Your task to perform on an android device: Is it going to rain tomorrow? Image 0: 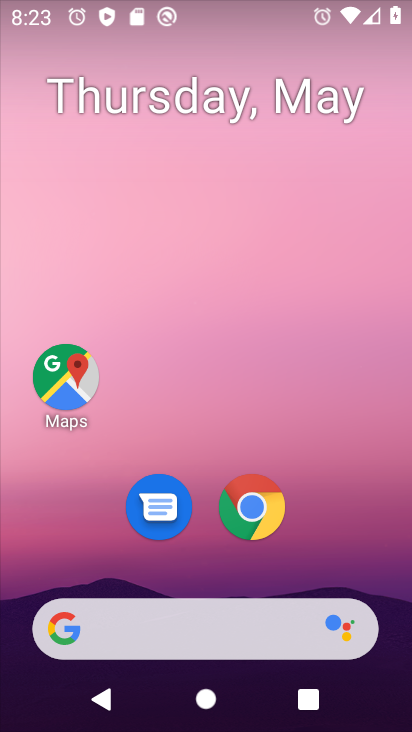
Step 0: click (196, 617)
Your task to perform on an android device: Is it going to rain tomorrow? Image 1: 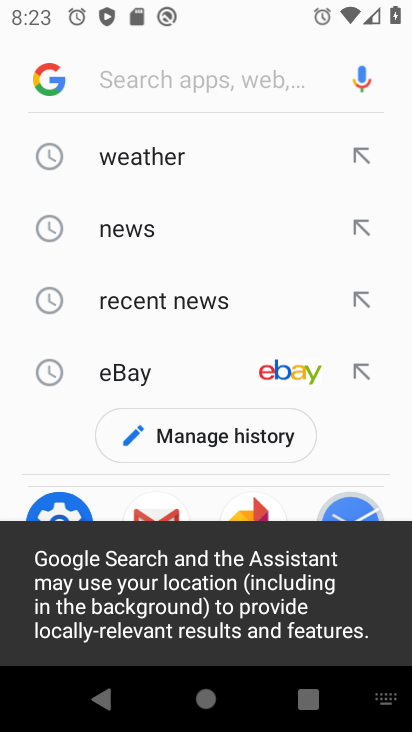
Step 1: type "Is it going to rain tomorrow?"
Your task to perform on an android device: Is it going to rain tomorrow? Image 2: 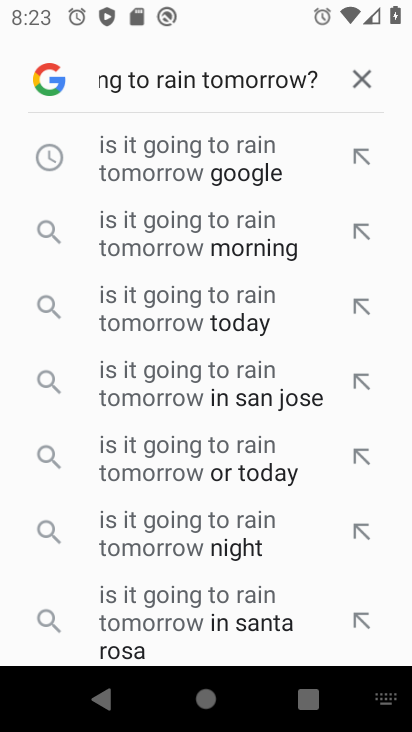
Step 2: click (212, 184)
Your task to perform on an android device: Is it going to rain tomorrow? Image 3: 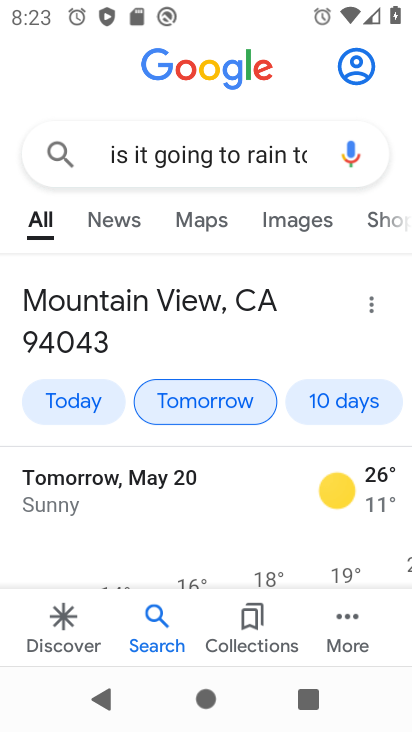
Step 3: task complete